Your task to perform on an android device: add a label to a message in the gmail app Image 0: 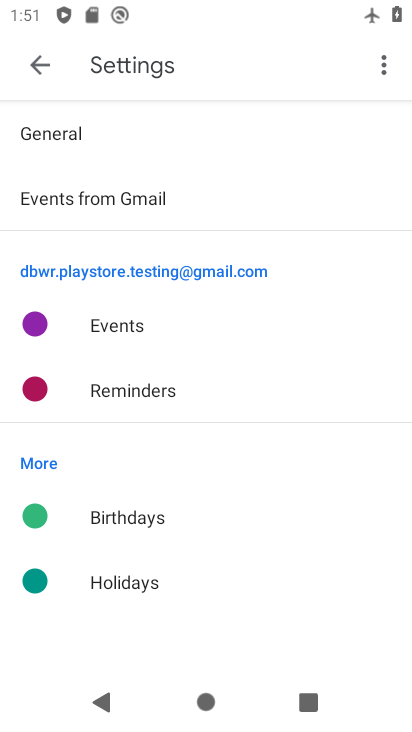
Step 0: press home button
Your task to perform on an android device: add a label to a message in the gmail app Image 1: 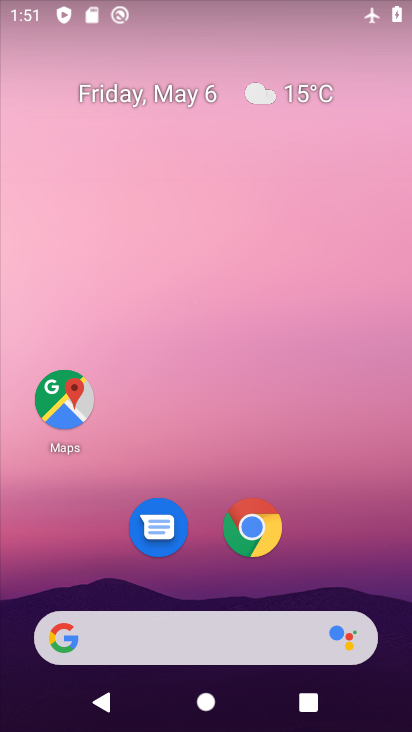
Step 1: drag from (330, 495) to (17, 97)
Your task to perform on an android device: add a label to a message in the gmail app Image 2: 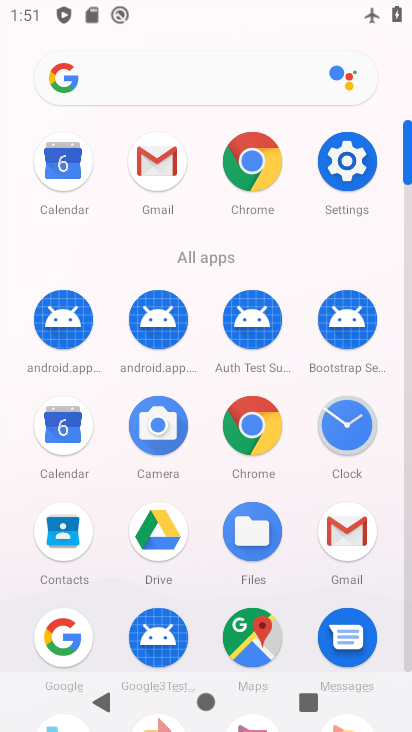
Step 2: click (163, 168)
Your task to perform on an android device: add a label to a message in the gmail app Image 3: 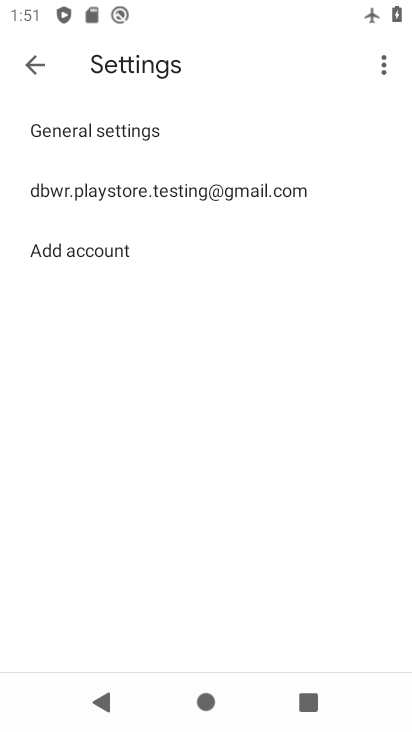
Step 3: press back button
Your task to perform on an android device: add a label to a message in the gmail app Image 4: 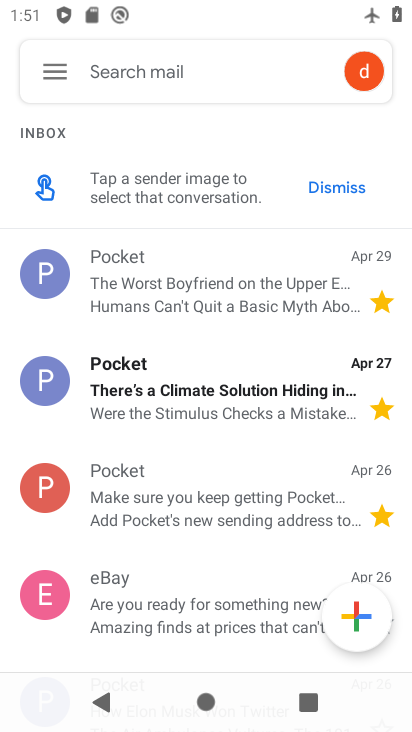
Step 4: click (175, 506)
Your task to perform on an android device: add a label to a message in the gmail app Image 5: 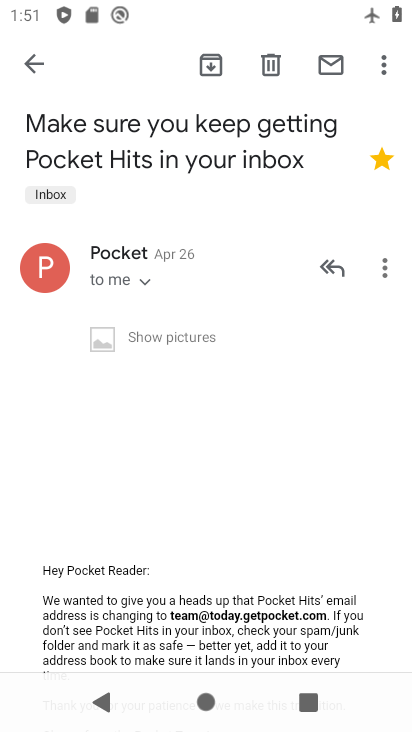
Step 5: click (385, 67)
Your task to perform on an android device: add a label to a message in the gmail app Image 6: 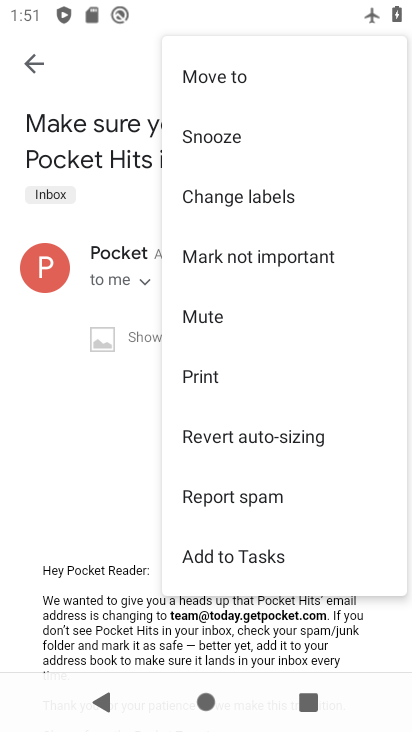
Step 6: click (220, 136)
Your task to perform on an android device: add a label to a message in the gmail app Image 7: 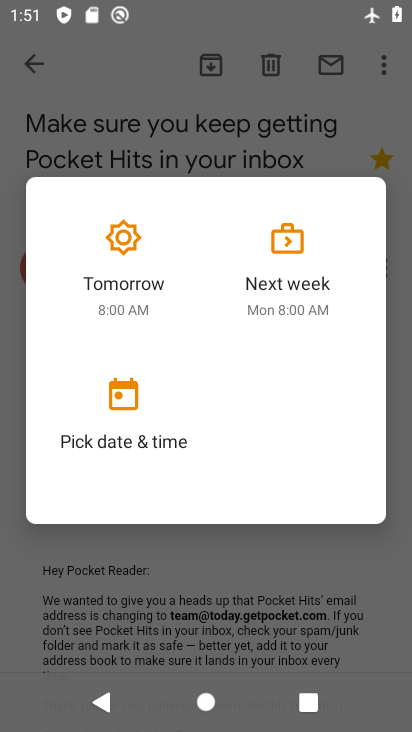
Step 7: click (134, 251)
Your task to perform on an android device: add a label to a message in the gmail app Image 8: 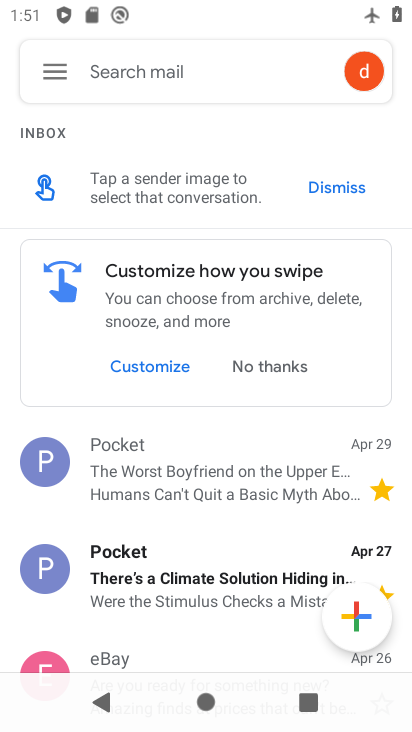
Step 8: task complete